Your task to perform on an android device: Open Wikipedia Image 0: 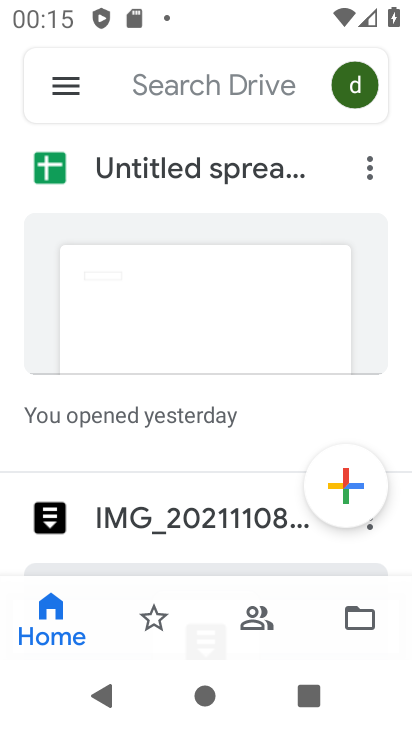
Step 0: click (62, 91)
Your task to perform on an android device: Open Wikipedia Image 1: 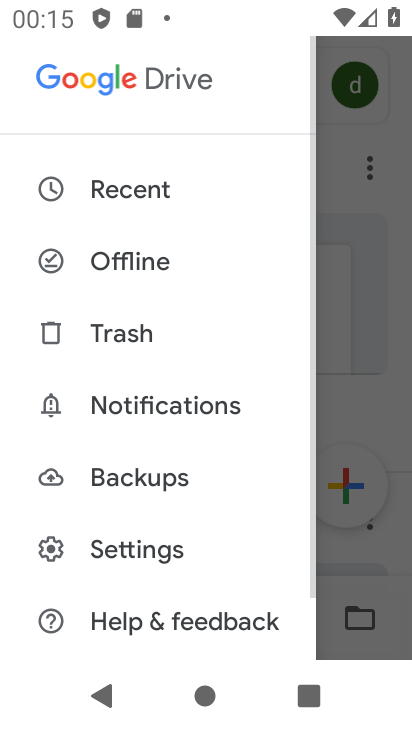
Step 1: drag from (179, 482) to (253, 126)
Your task to perform on an android device: Open Wikipedia Image 2: 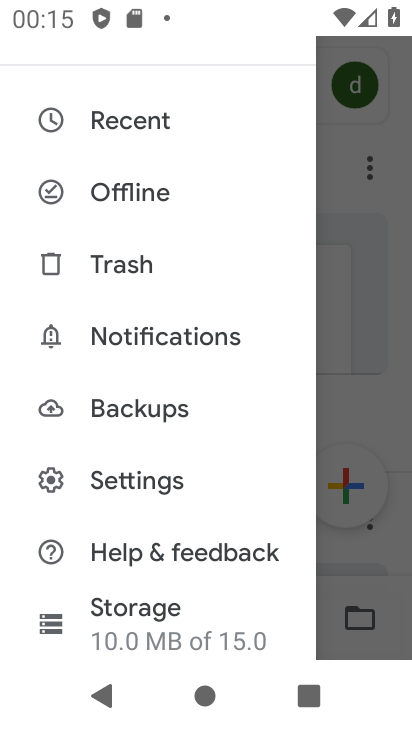
Step 2: click (381, 410)
Your task to perform on an android device: Open Wikipedia Image 3: 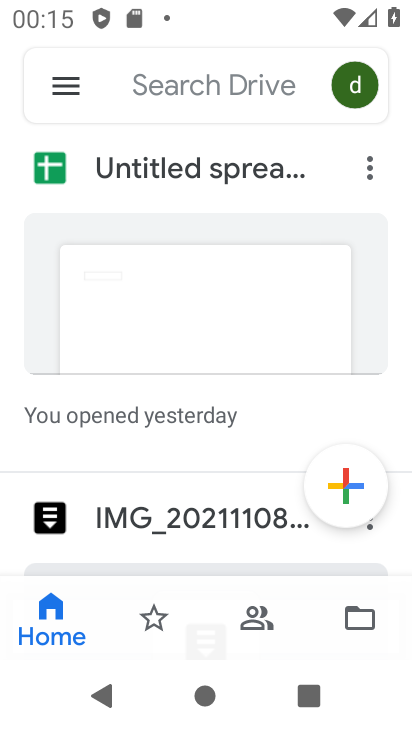
Step 3: press home button
Your task to perform on an android device: Open Wikipedia Image 4: 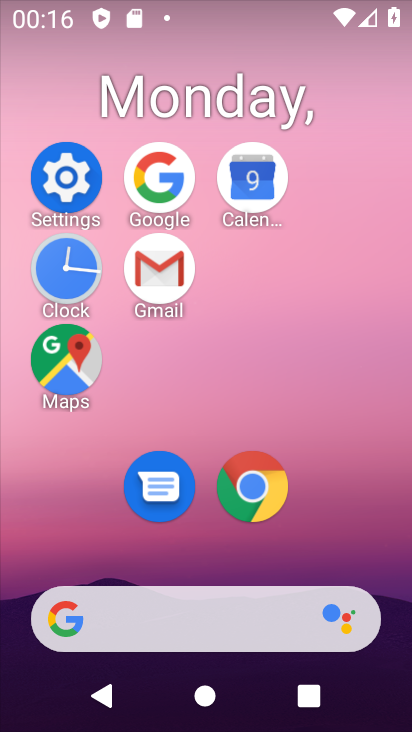
Step 4: click (264, 500)
Your task to perform on an android device: Open Wikipedia Image 5: 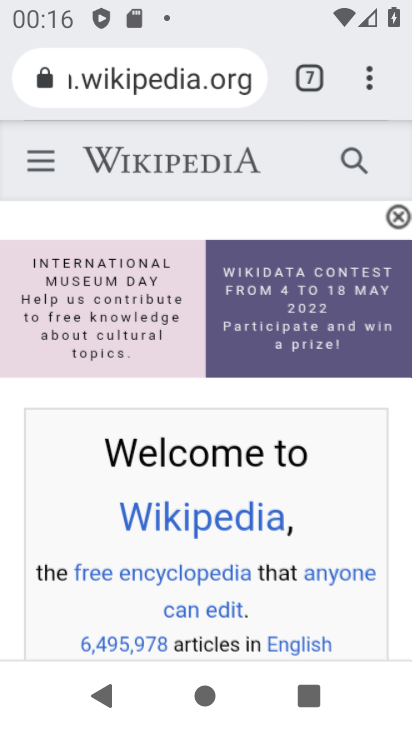
Step 5: click (302, 81)
Your task to perform on an android device: Open Wikipedia Image 6: 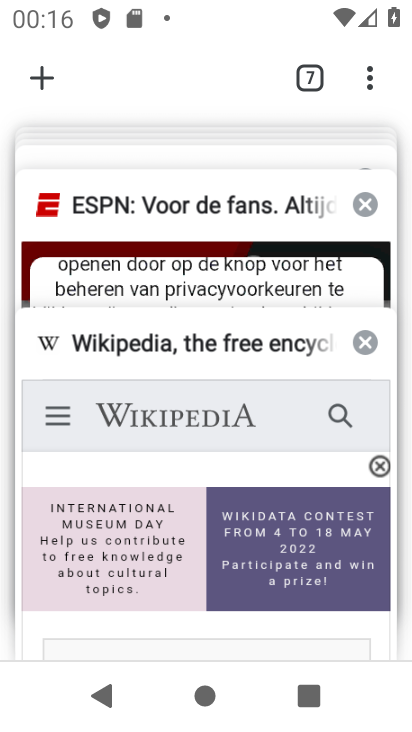
Step 6: task complete